Your task to perform on an android device: Show me the alarms in the clock app Image 0: 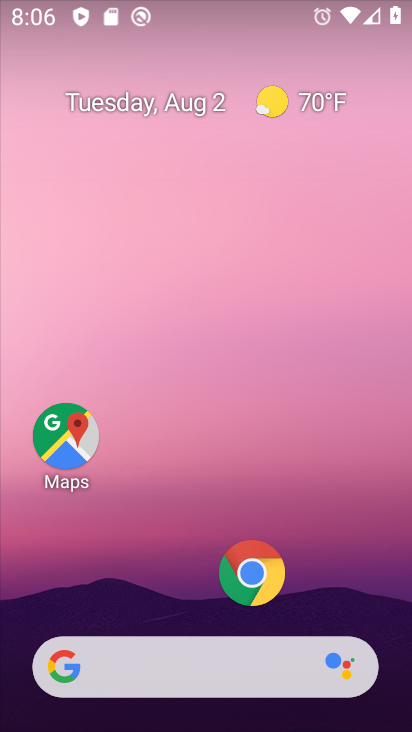
Step 0: drag from (188, 609) to (226, 32)
Your task to perform on an android device: Show me the alarms in the clock app Image 1: 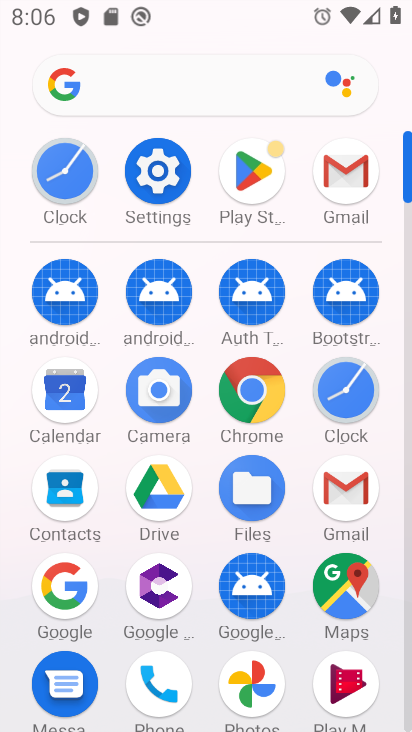
Step 1: click (343, 379)
Your task to perform on an android device: Show me the alarms in the clock app Image 2: 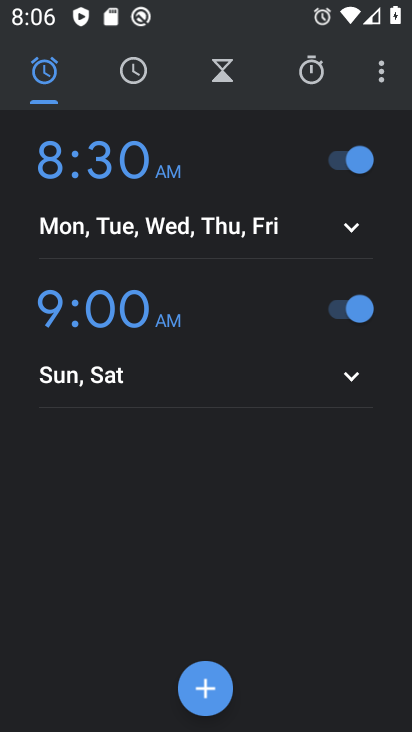
Step 2: task complete